Your task to perform on an android device: open chrome privacy settings Image 0: 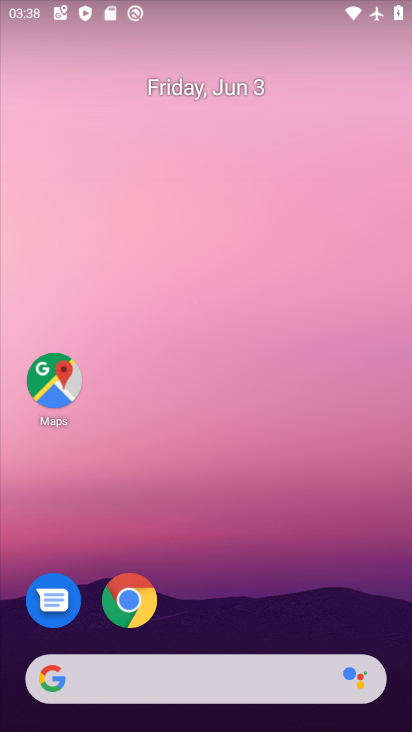
Step 0: click (127, 602)
Your task to perform on an android device: open chrome privacy settings Image 1: 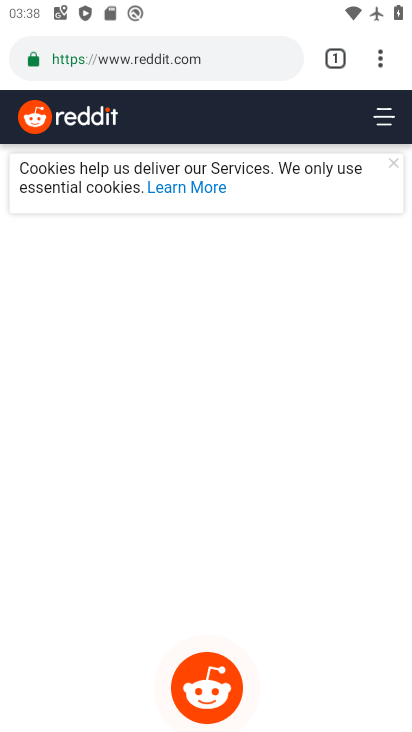
Step 1: click (377, 53)
Your task to perform on an android device: open chrome privacy settings Image 2: 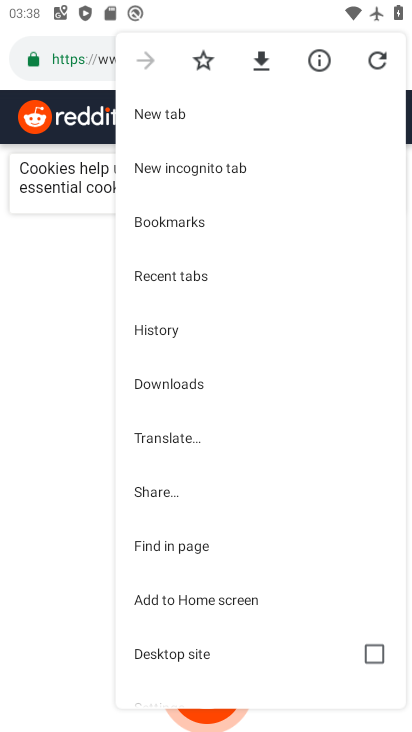
Step 2: drag from (241, 479) to (286, 184)
Your task to perform on an android device: open chrome privacy settings Image 3: 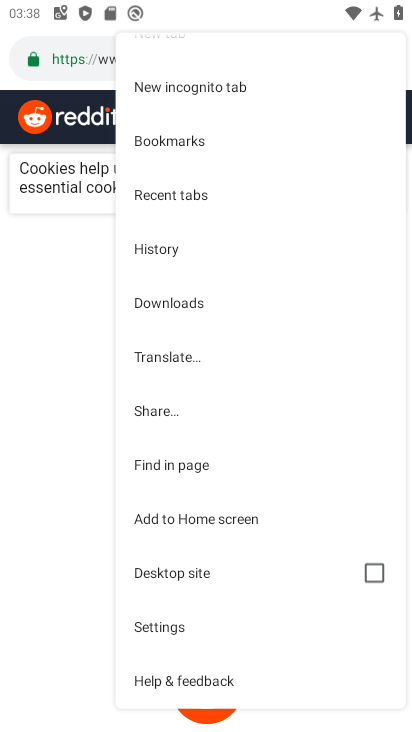
Step 3: click (167, 635)
Your task to perform on an android device: open chrome privacy settings Image 4: 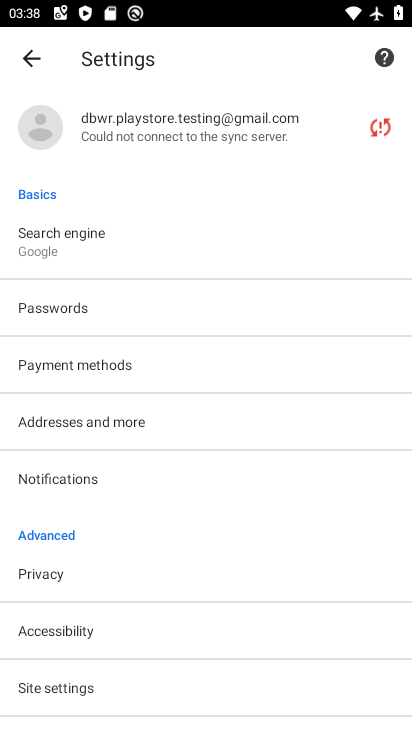
Step 4: drag from (86, 452) to (87, 402)
Your task to perform on an android device: open chrome privacy settings Image 5: 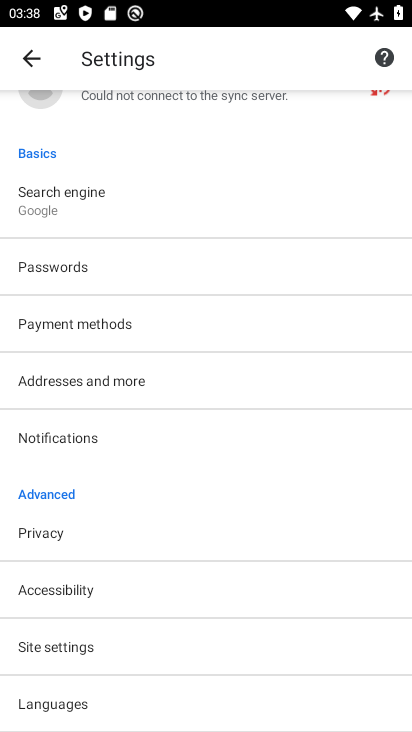
Step 5: click (49, 531)
Your task to perform on an android device: open chrome privacy settings Image 6: 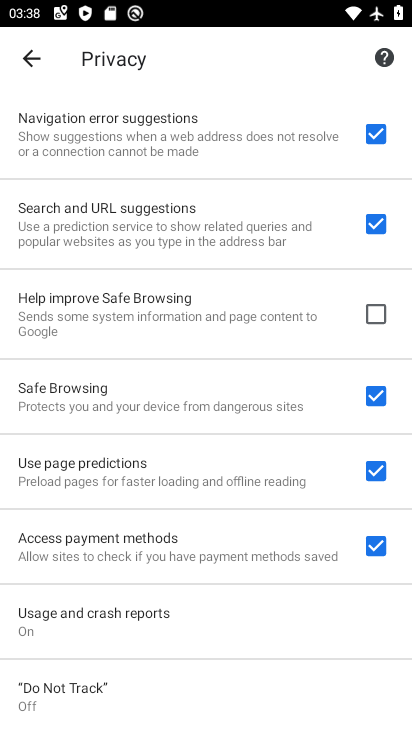
Step 6: task complete